Your task to perform on an android device: Open Amazon Image 0: 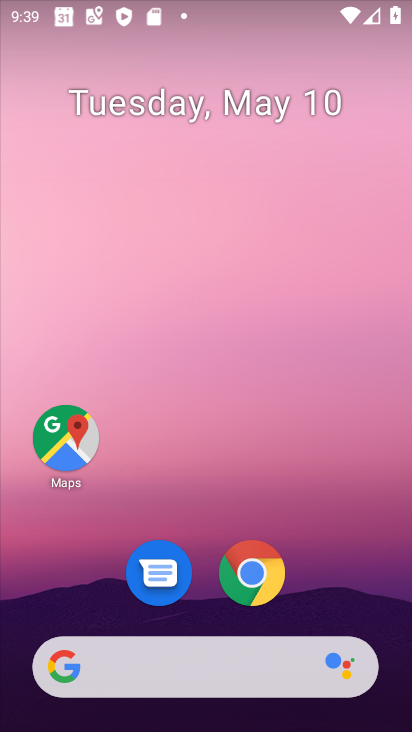
Step 0: click (254, 575)
Your task to perform on an android device: Open Amazon Image 1: 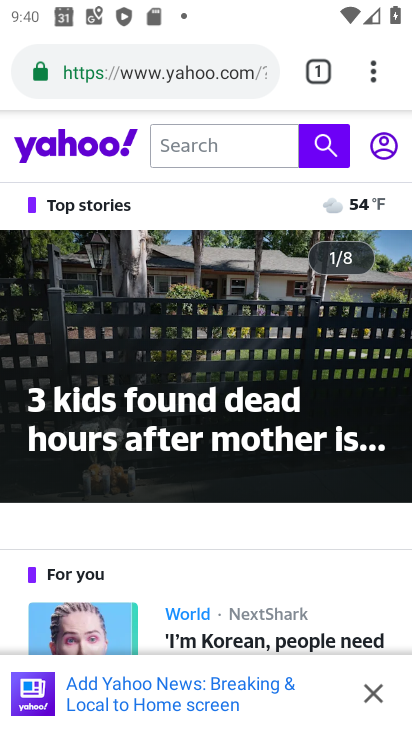
Step 1: click (375, 64)
Your task to perform on an android device: Open Amazon Image 2: 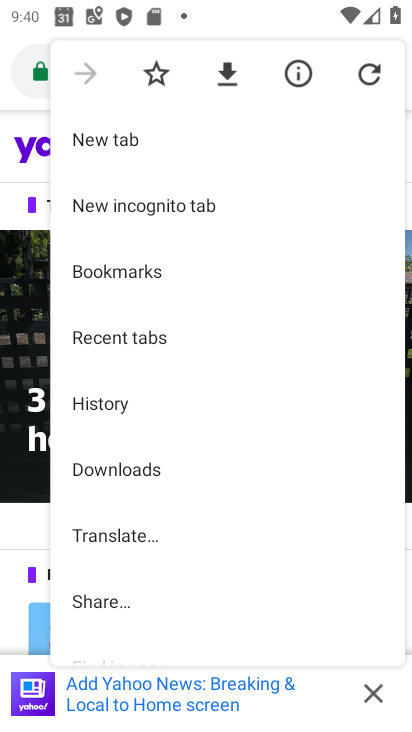
Step 2: click (122, 139)
Your task to perform on an android device: Open Amazon Image 3: 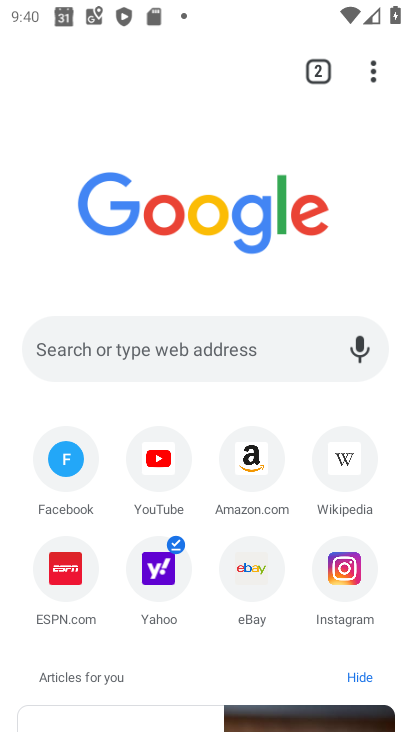
Step 3: click (257, 453)
Your task to perform on an android device: Open Amazon Image 4: 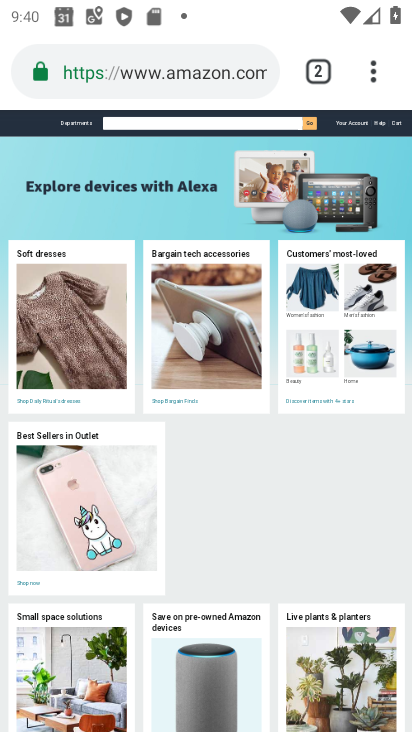
Step 4: task complete